Your task to perform on an android device: change the upload size in google photos Image 0: 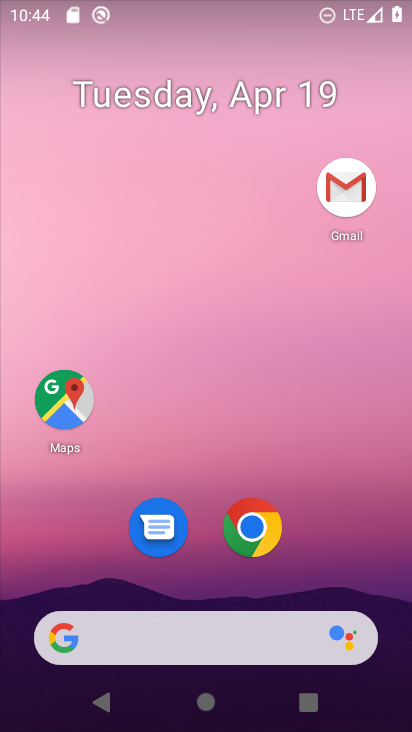
Step 0: drag from (365, 527) to (371, 117)
Your task to perform on an android device: change the upload size in google photos Image 1: 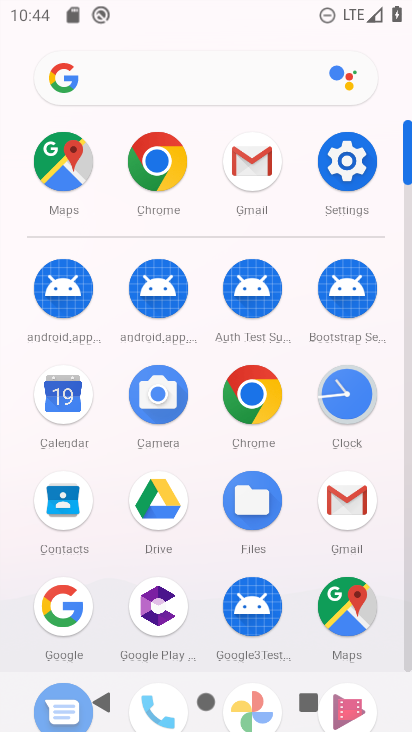
Step 1: drag from (297, 540) to (292, 264)
Your task to perform on an android device: change the upload size in google photos Image 2: 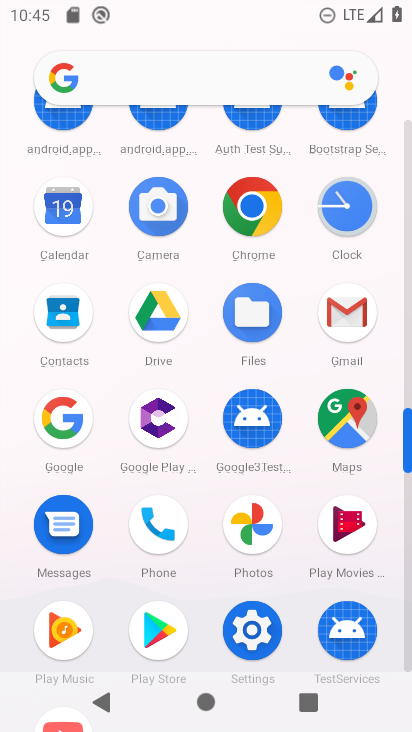
Step 2: click (256, 534)
Your task to perform on an android device: change the upload size in google photos Image 3: 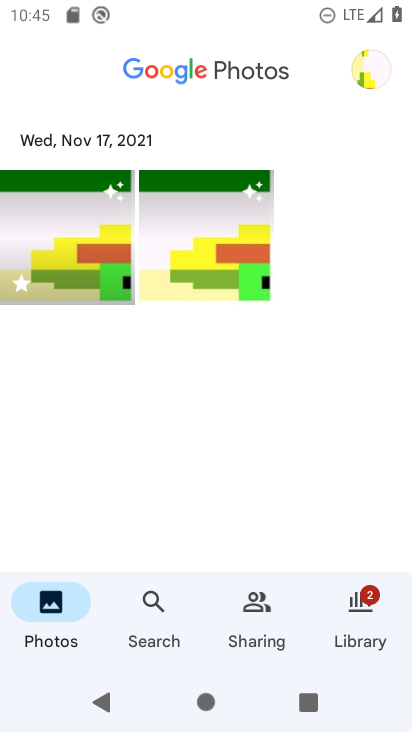
Step 3: click (369, 78)
Your task to perform on an android device: change the upload size in google photos Image 4: 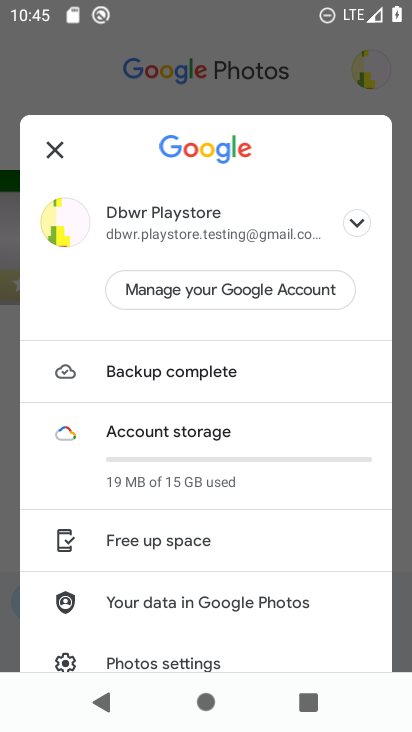
Step 4: drag from (300, 631) to (309, 327)
Your task to perform on an android device: change the upload size in google photos Image 5: 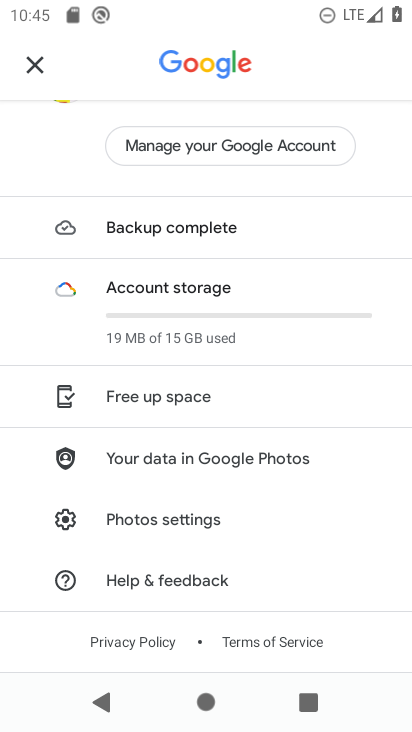
Step 5: click (206, 516)
Your task to perform on an android device: change the upload size in google photos Image 6: 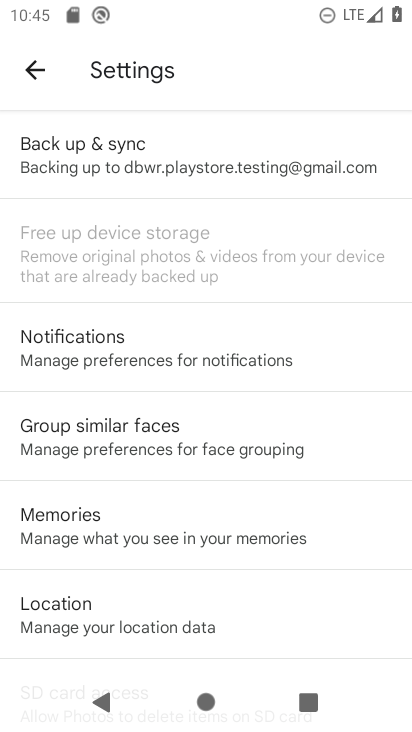
Step 6: click (187, 161)
Your task to perform on an android device: change the upload size in google photos Image 7: 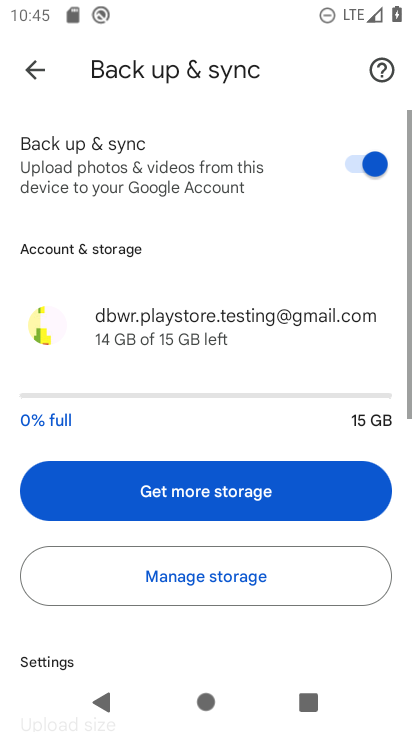
Step 7: drag from (277, 608) to (277, 223)
Your task to perform on an android device: change the upload size in google photos Image 8: 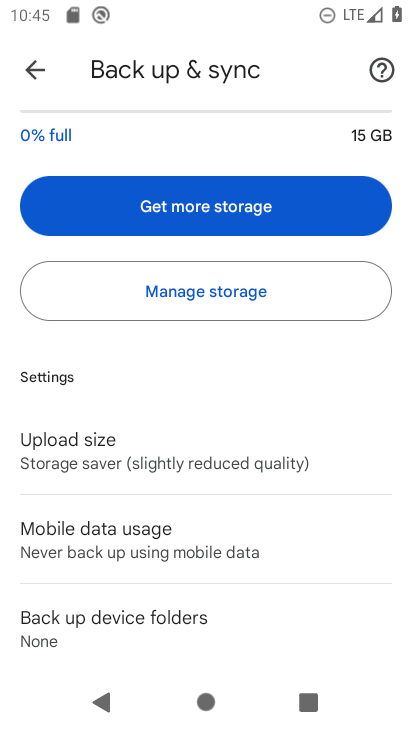
Step 8: click (147, 460)
Your task to perform on an android device: change the upload size in google photos Image 9: 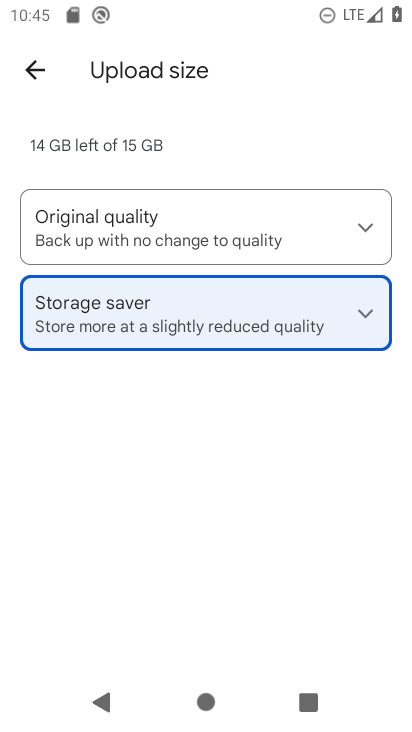
Step 9: click (182, 217)
Your task to perform on an android device: change the upload size in google photos Image 10: 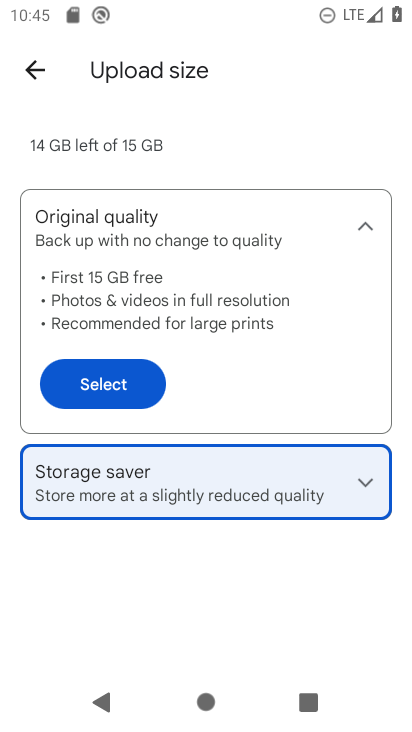
Step 10: click (93, 395)
Your task to perform on an android device: change the upload size in google photos Image 11: 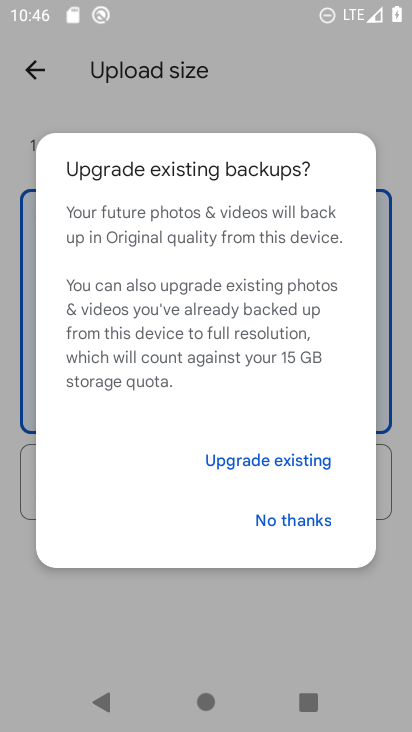
Step 11: click (295, 513)
Your task to perform on an android device: change the upload size in google photos Image 12: 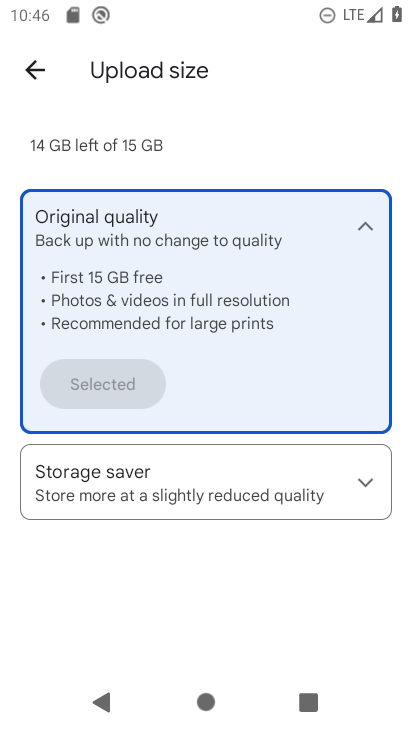
Step 12: task complete